Your task to perform on an android device: turn on notifications settings in the gmail app Image 0: 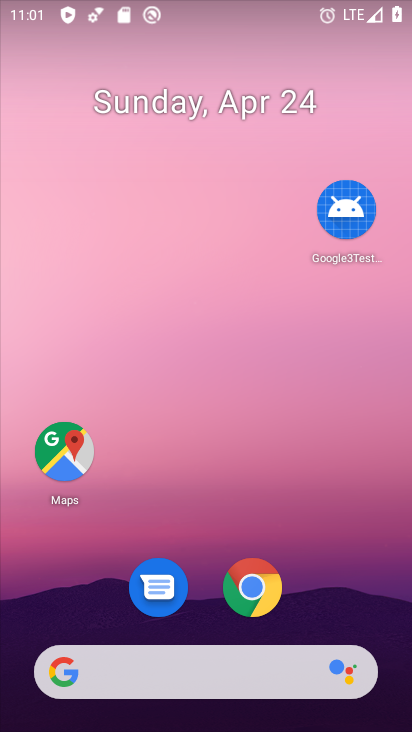
Step 0: drag from (368, 598) to (266, 157)
Your task to perform on an android device: turn on notifications settings in the gmail app Image 1: 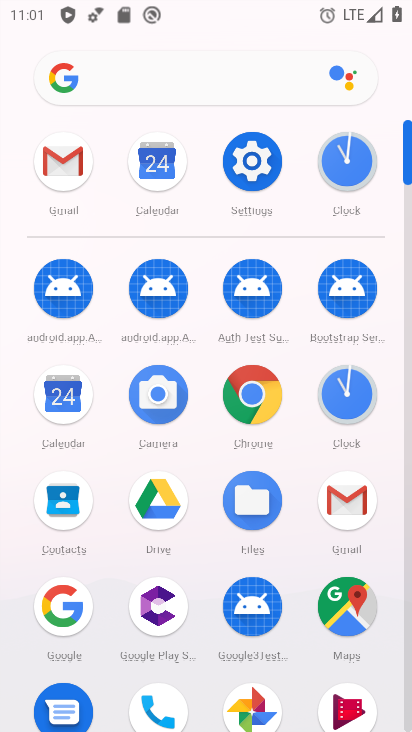
Step 1: click (347, 502)
Your task to perform on an android device: turn on notifications settings in the gmail app Image 2: 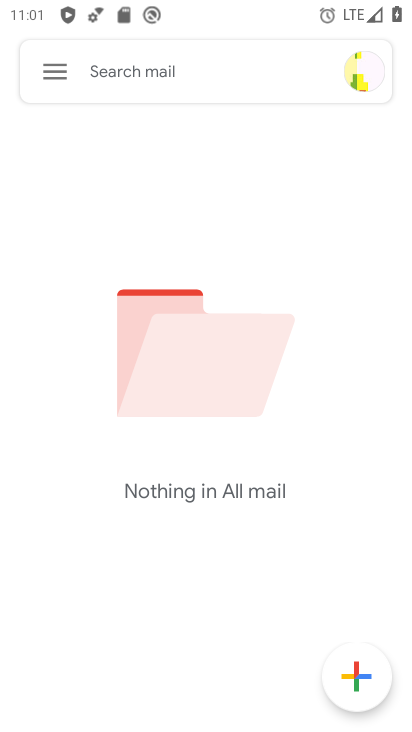
Step 2: click (53, 72)
Your task to perform on an android device: turn on notifications settings in the gmail app Image 3: 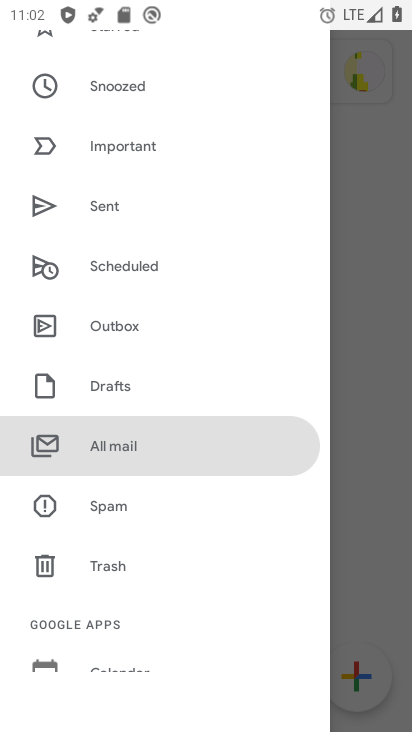
Step 3: drag from (187, 626) to (167, 303)
Your task to perform on an android device: turn on notifications settings in the gmail app Image 4: 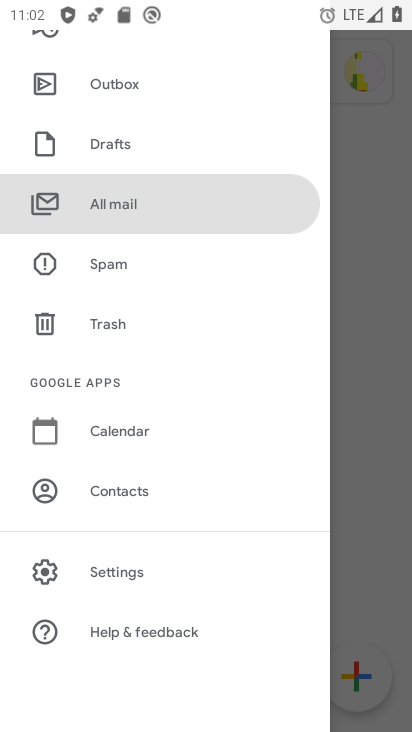
Step 4: click (114, 574)
Your task to perform on an android device: turn on notifications settings in the gmail app Image 5: 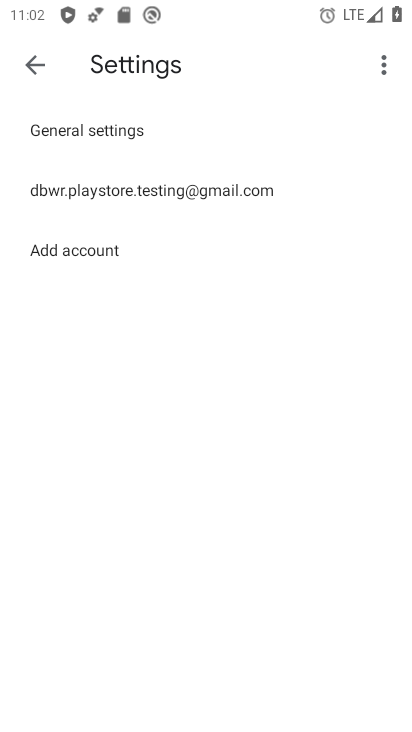
Step 5: click (145, 193)
Your task to perform on an android device: turn on notifications settings in the gmail app Image 6: 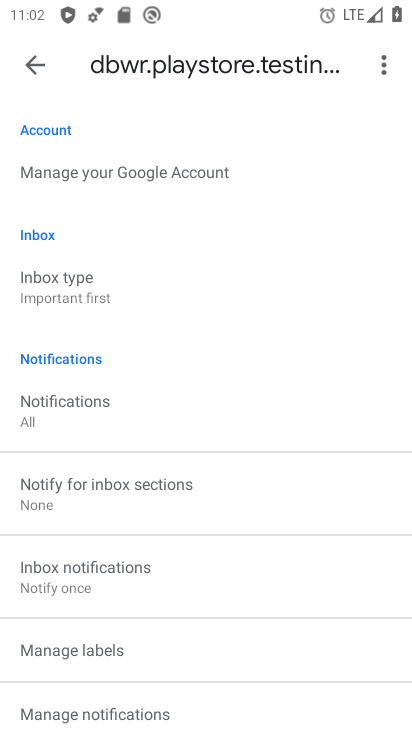
Step 6: click (87, 407)
Your task to perform on an android device: turn on notifications settings in the gmail app Image 7: 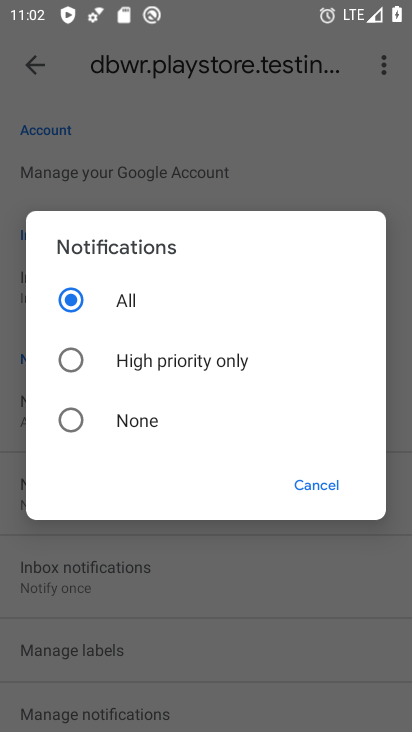
Step 7: task complete